Your task to perform on an android device: Open Maps and search for coffee Image 0: 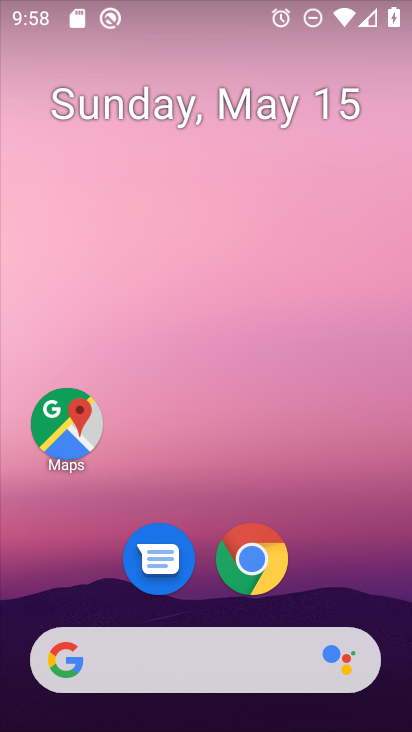
Step 0: click (74, 453)
Your task to perform on an android device: Open Maps and search for coffee Image 1: 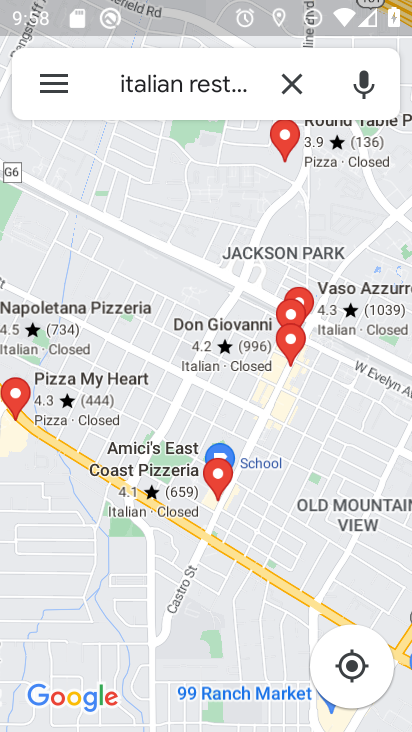
Step 1: click (284, 84)
Your task to perform on an android device: Open Maps and search for coffee Image 2: 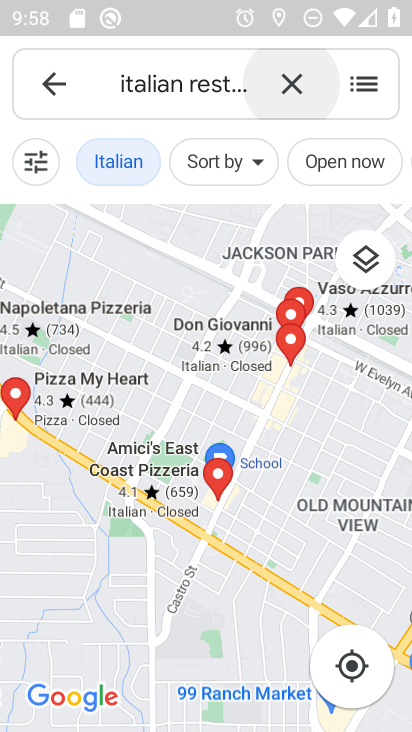
Step 2: click (284, 84)
Your task to perform on an android device: Open Maps and search for coffee Image 3: 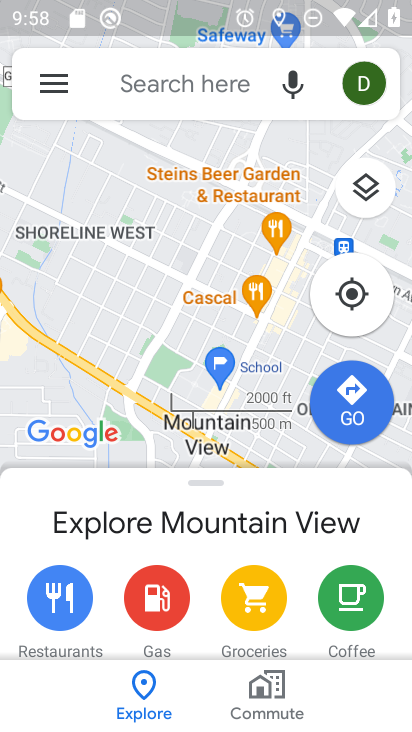
Step 3: click (202, 98)
Your task to perform on an android device: Open Maps and search for coffee Image 4: 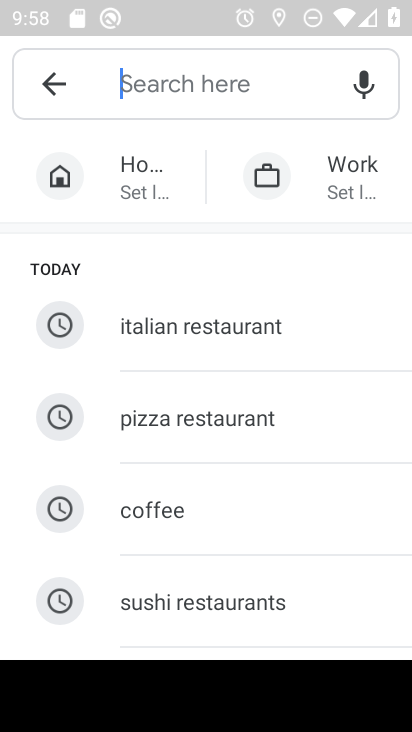
Step 4: click (233, 583)
Your task to perform on an android device: Open Maps and search for coffee Image 5: 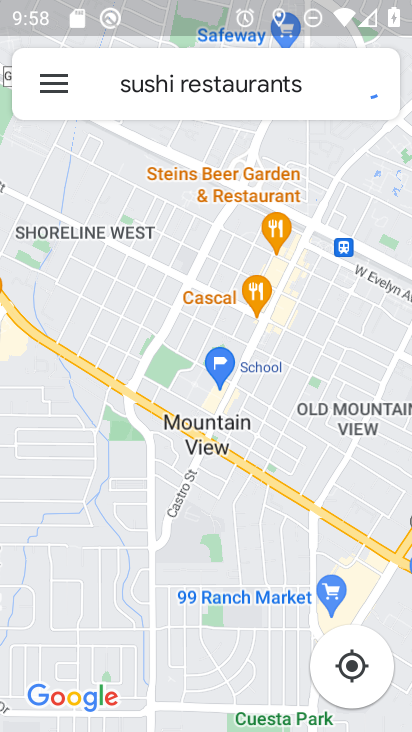
Step 5: task complete